Your task to perform on an android device: Search for seafood restaurants on Google Maps Image 0: 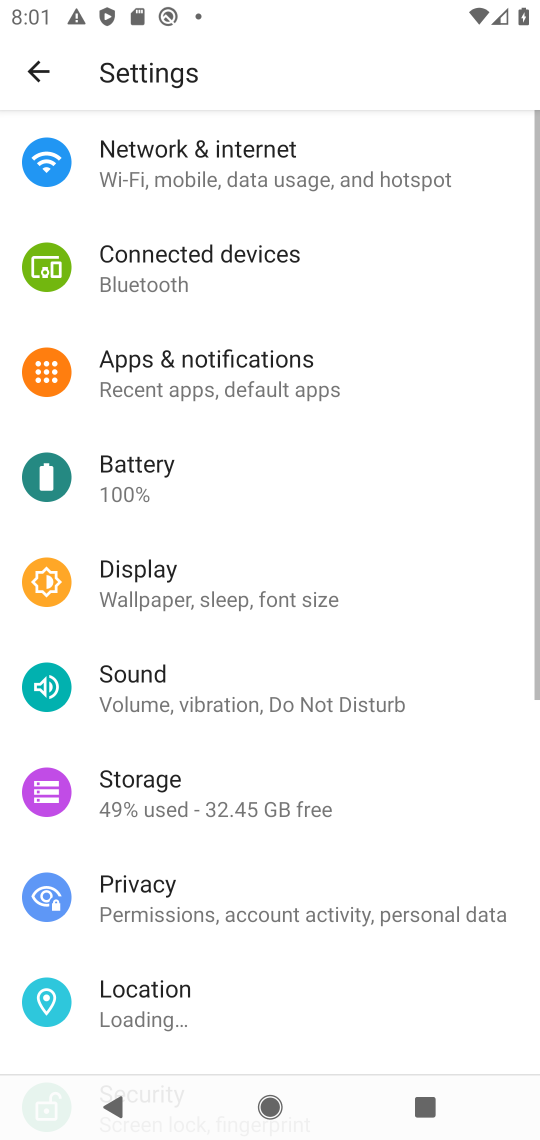
Step 0: press home button
Your task to perform on an android device: Search for seafood restaurants on Google Maps Image 1: 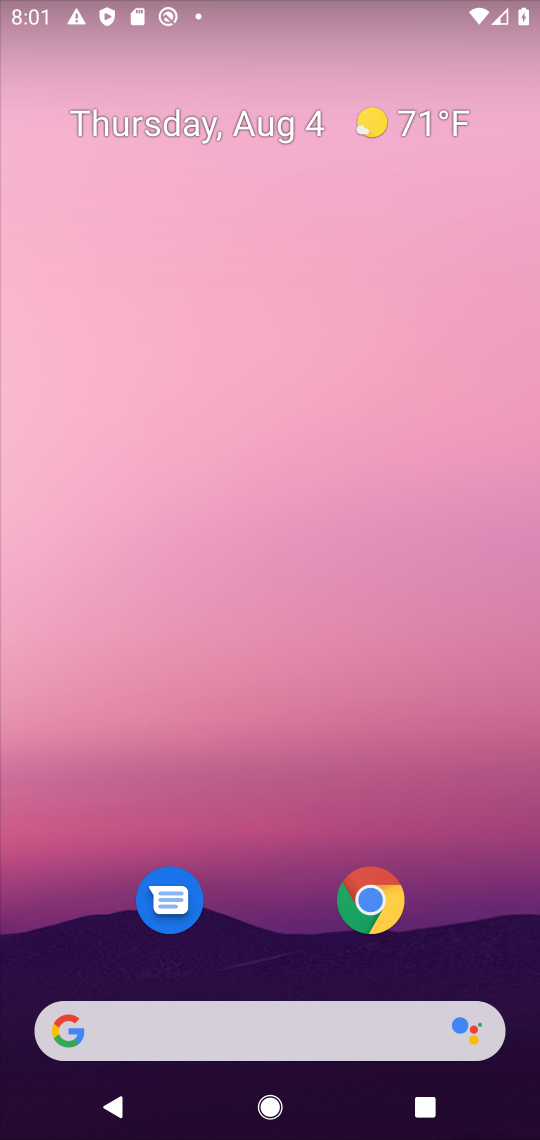
Step 1: drag from (230, 483) to (225, 73)
Your task to perform on an android device: Search for seafood restaurants on Google Maps Image 2: 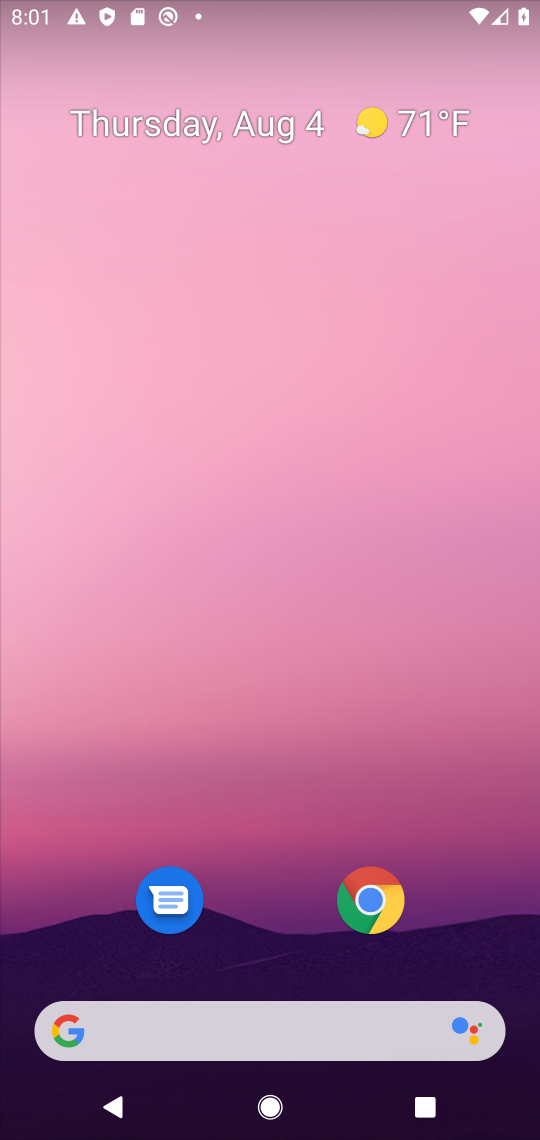
Step 2: drag from (255, 859) to (306, 129)
Your task to perform on an android device: Search for seafood restaurants on Google Maps Image 3: 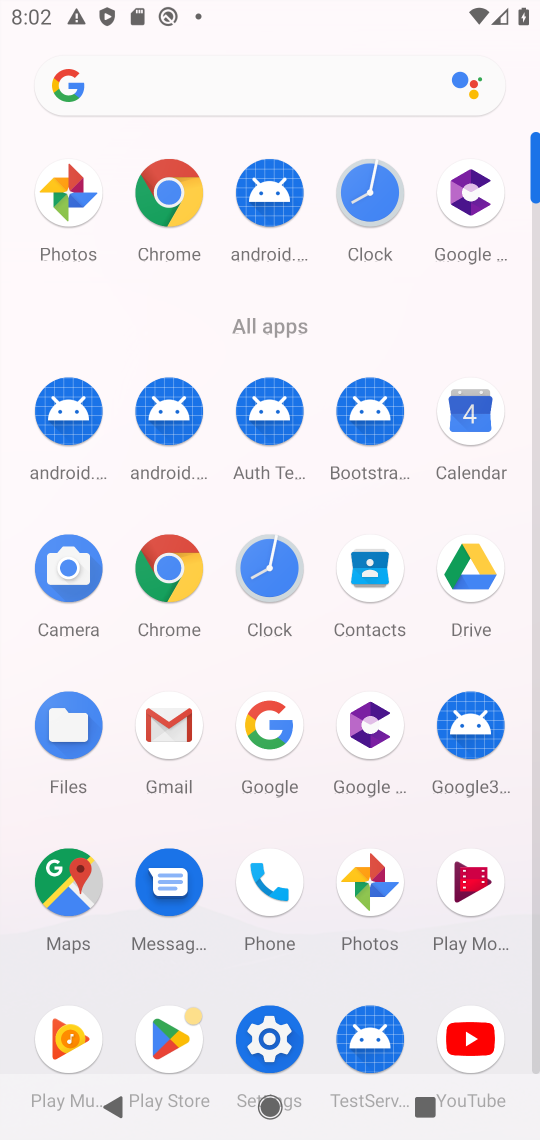
Step 3: click (82, 902)
Your task to perform on an android device: Search for seafood restaurants on Google Maps Image 4: 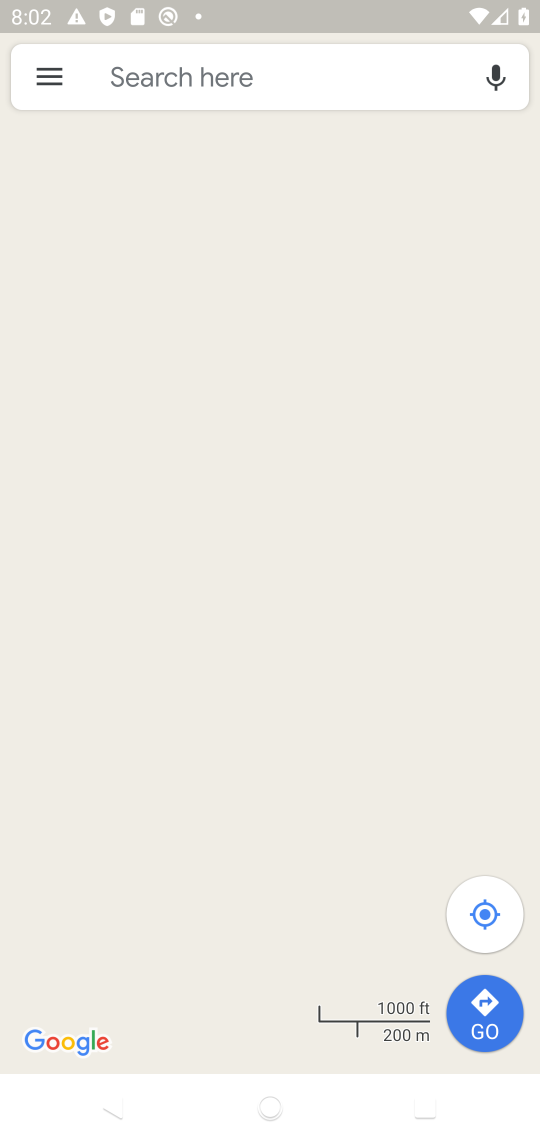
Step 4: click (309, 73)
Your task to perform on an android device: Search for seafood restaurants on Google Maps Image 5: 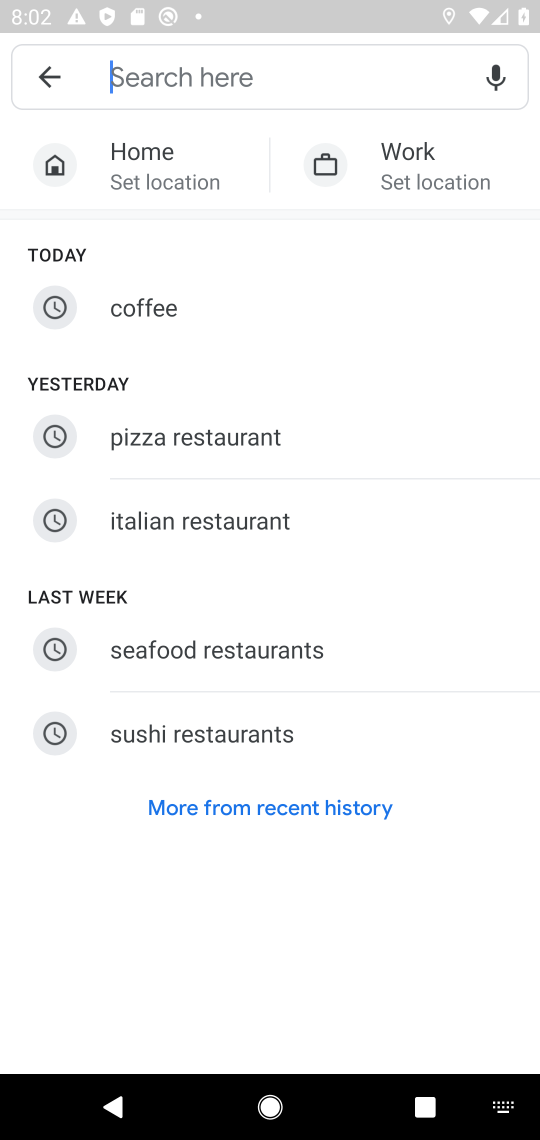
Step 5: type "seafood restaurants"
Your task to perform on an android device: Search for seafood restaurants on Google Maps Image 6: 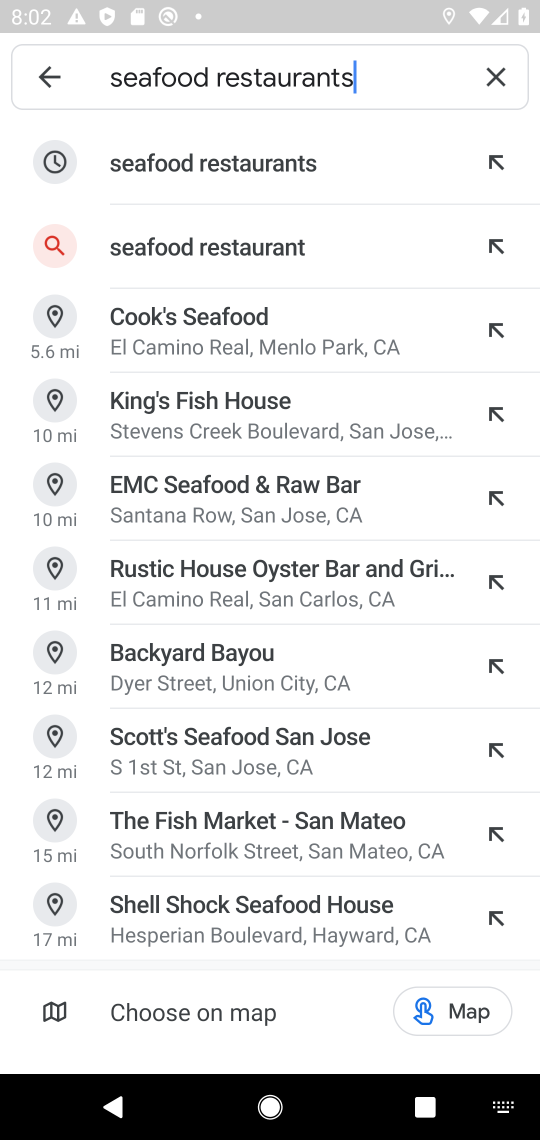
Step 6: click (219, 147)
Your task to perform on an android device: Search for seafood restaurants on Google Maps Image 7: 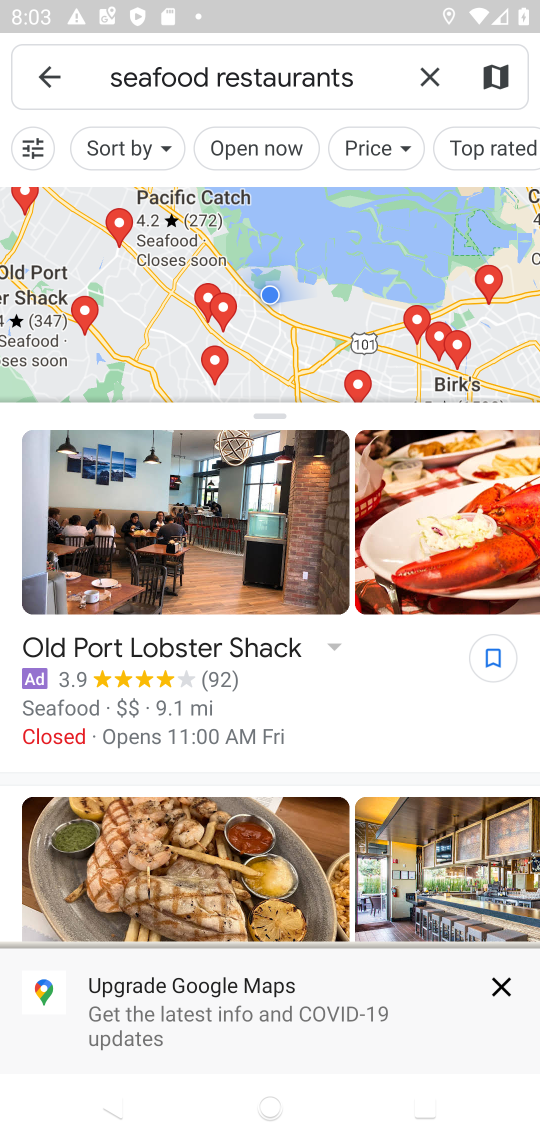
Step 7: task complete